Your task to perform on an android device: open app "Google Translate" Image 0: 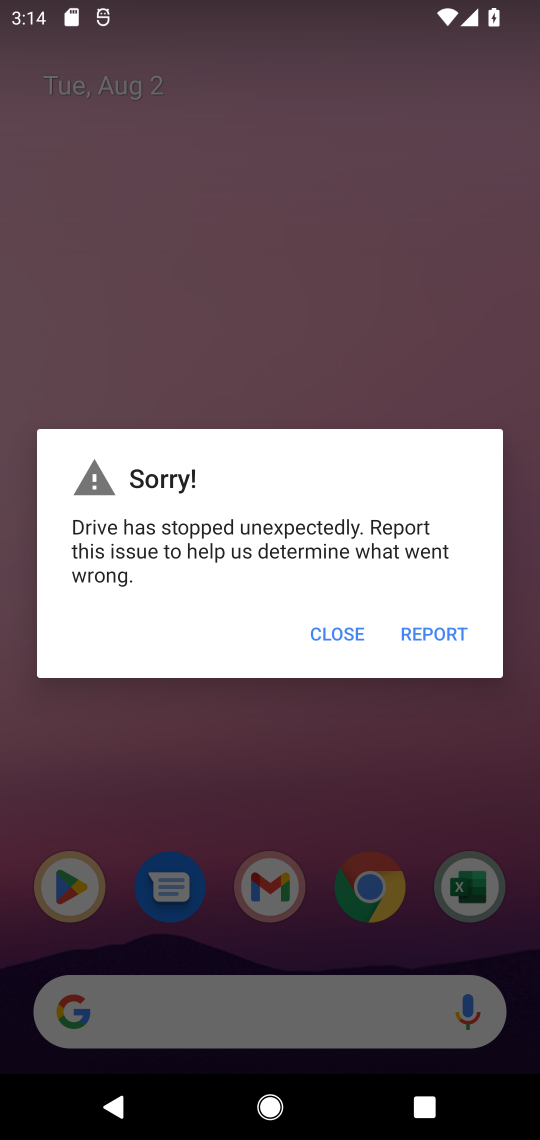
Step 0: press home button
Your task to perform on an android device: open app "Google Translate" Image 1: 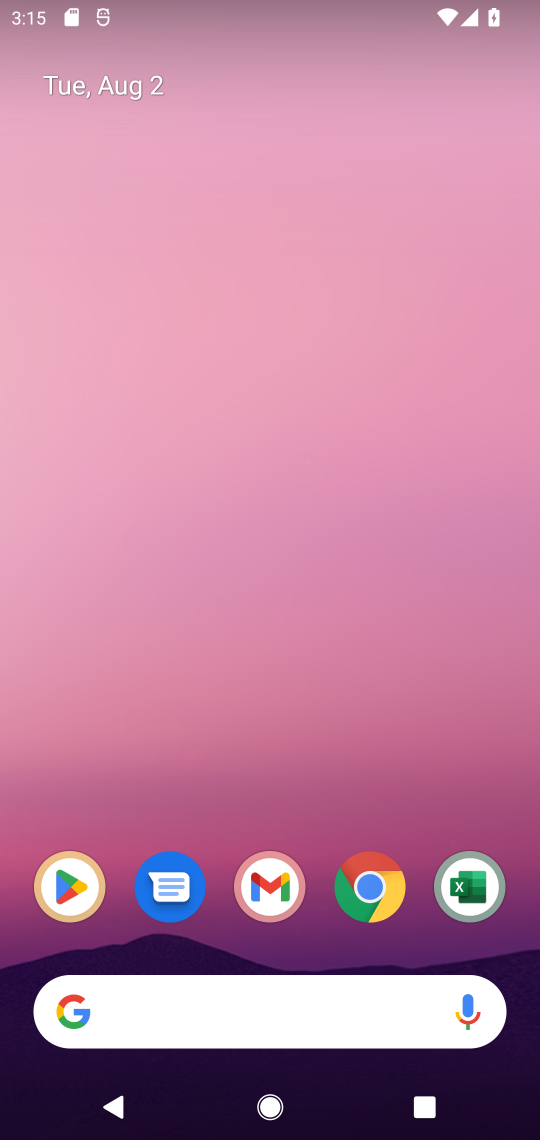
Step 1: drag from (77, 987) to (268, 7)
Your task to perform on an android device: open app "Google Translate" Image 2: 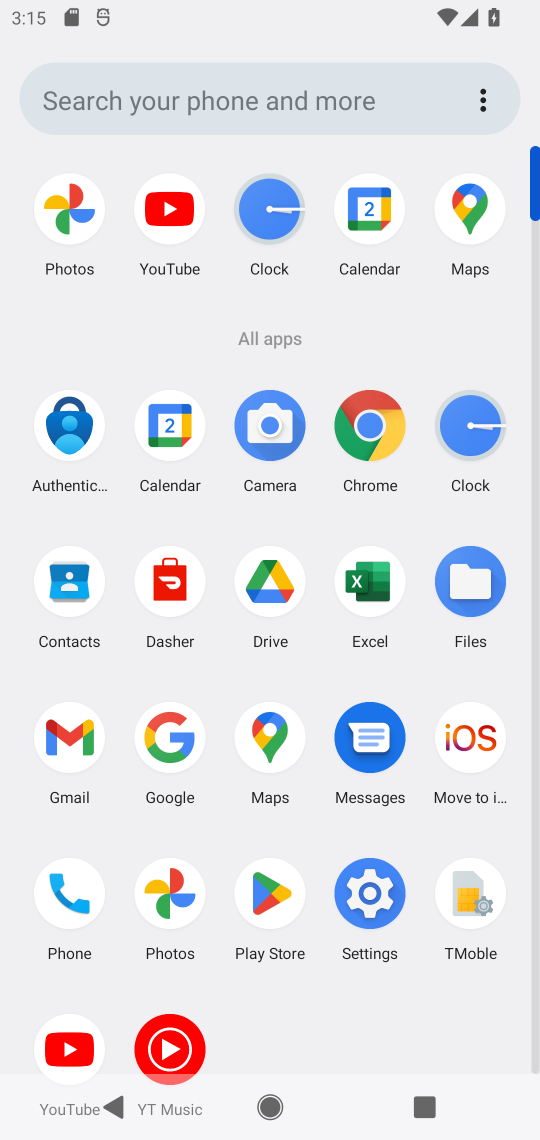
Step 2: click (292, 886)
Your task to perform on an android device: open app "Google Translate" Image 3: 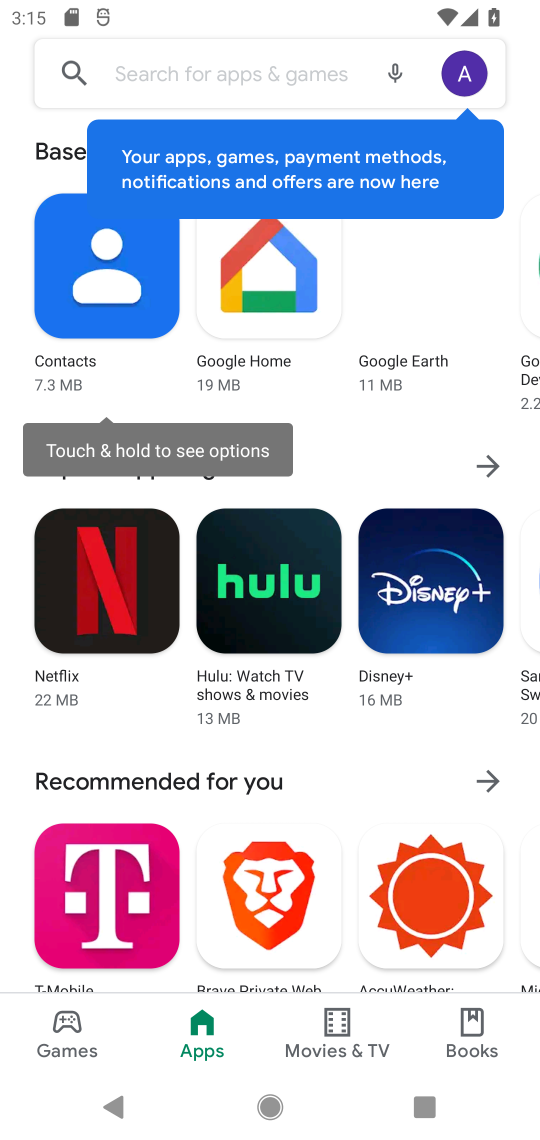
Step 3: click (137, 77)
Your task to perform on an android device: open app "Google Translate" Image 4: 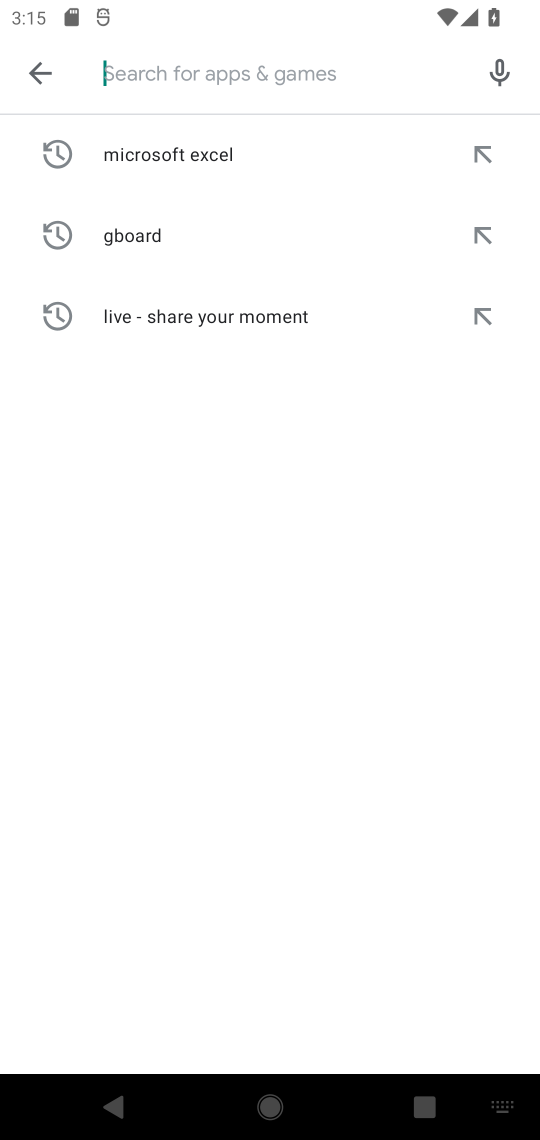
Step 4: type "Google Translate"
Your task to perform on an android device: open app "Google Translate" Image 5: 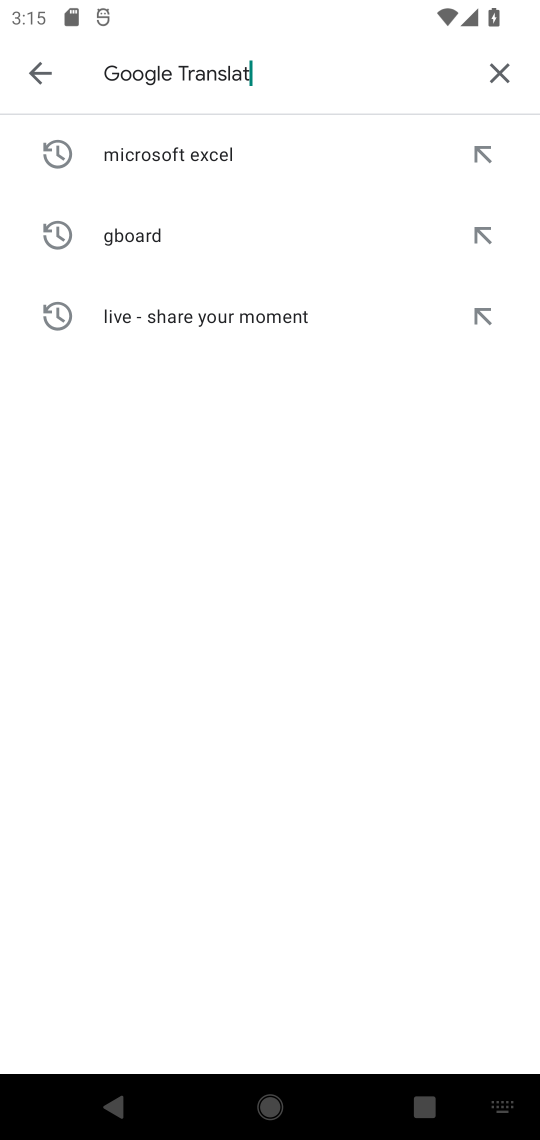
Step 5: type ""
Your task to perform on an android device: open app "Google Translate" Image 6: 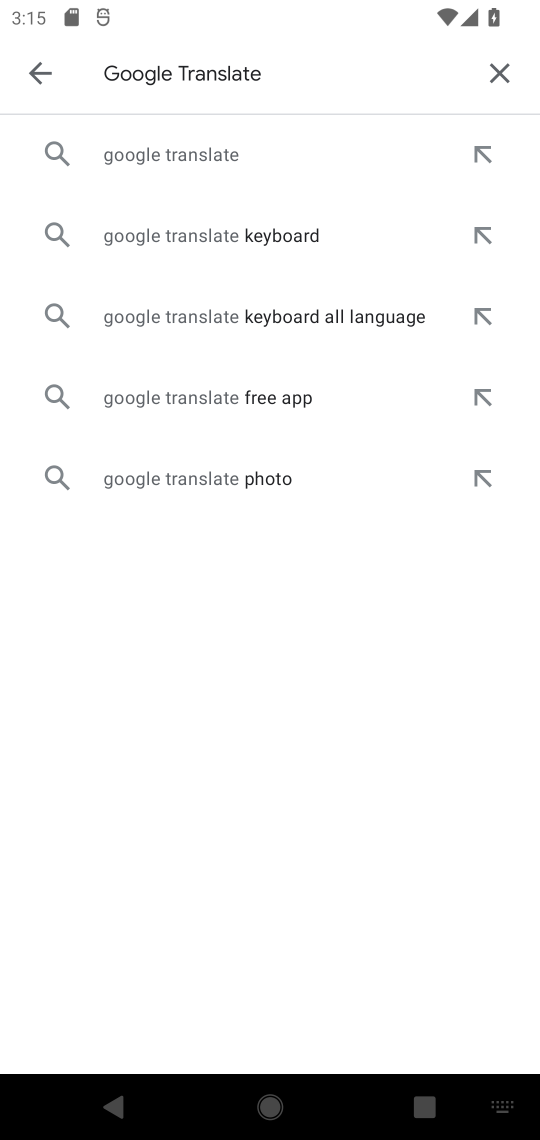
Step 6: click (177, 142)
Your task to perform on an android device: open app "Google Translate" Image 7: 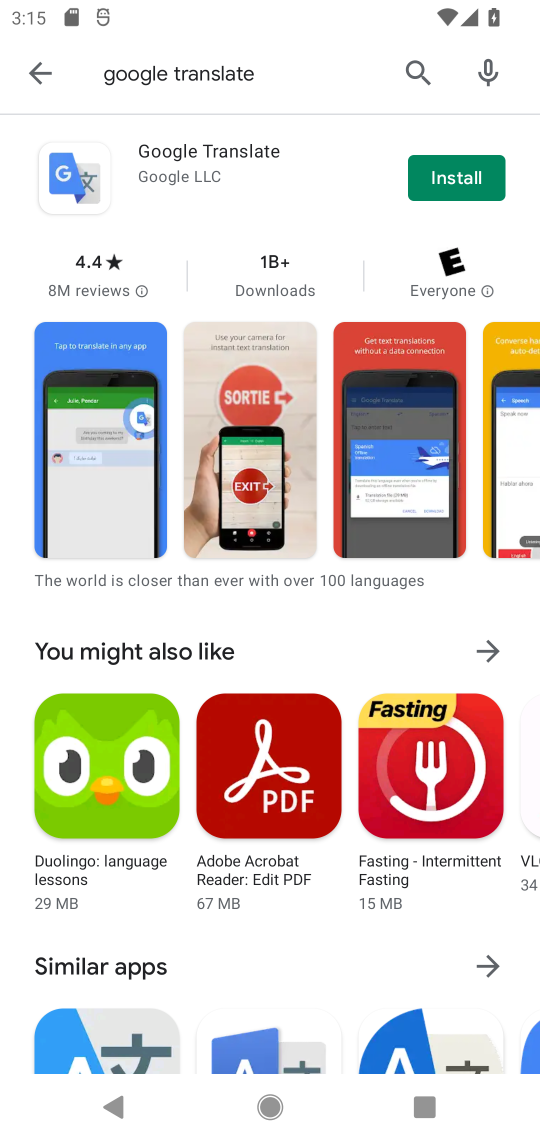
Step 7: task complete